Your task to perform on an android device: turn off data saver in the chrome app Image 0: 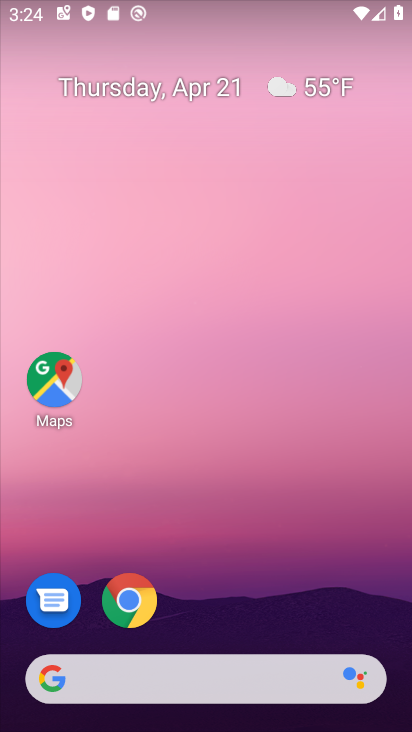
Step 0: drag from (151, 683) to (323, 249)
Your task to perform on an android device: turn off data saver in the chrome app Image 1: 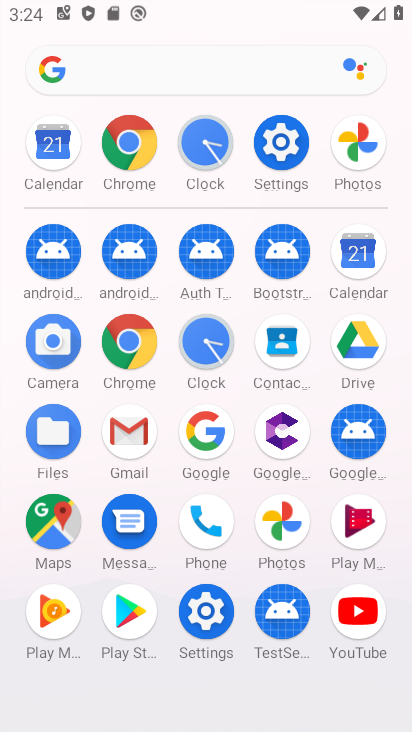
Step 1: click (133, 153)
Your task to perform on an android device: turn off data saver in the chrome app Image 2: 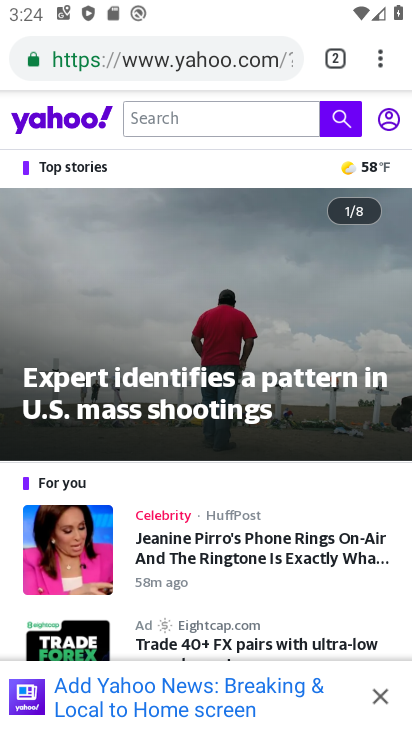
Step 2: click (375, 64)
Your task to perform on an android device: turn off data saver in the chrome app Image 3: 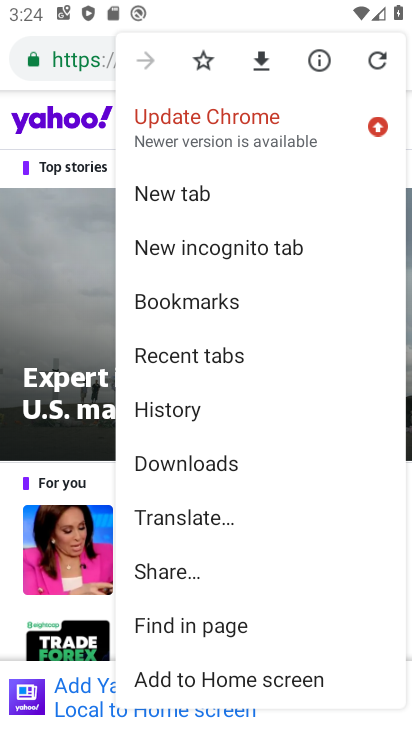
Step 3: drag from (221, 613) to (317, 189)
Your task to perform on an android device: turn off data saver in the chrome app Image 4: 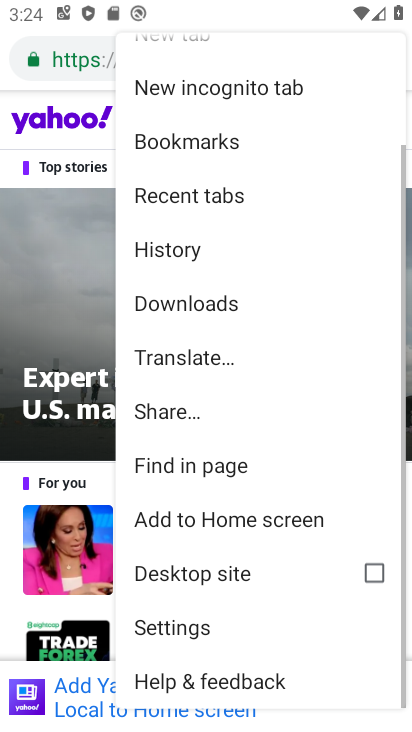
Step 4: click (189, 625)
Your task to perform on an android device: turn off data saver in the chrome app Image 5: 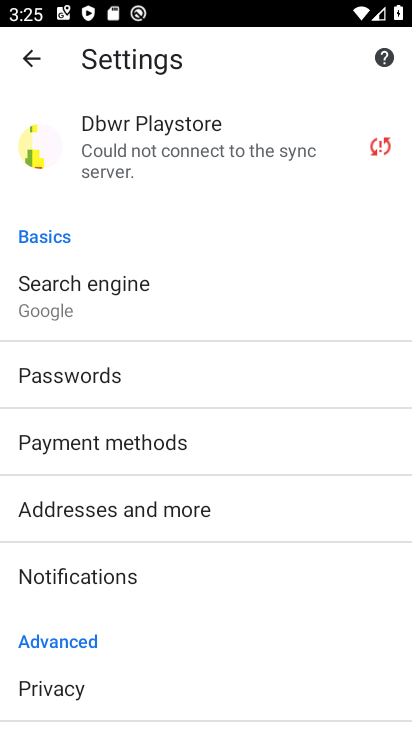
Step 5: drag from (101, 672) to (277, 236)
Your task to perform on an android device: turn off data saver in the chrome app Image 6: 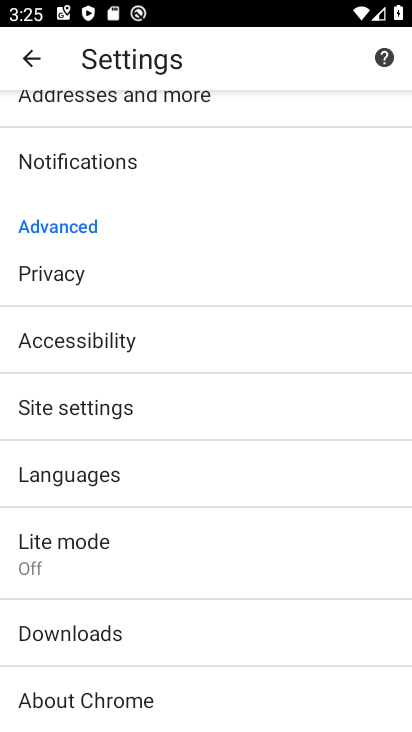
Step 6: click (102, 547)
Your task to perform on an android device: turn off data saver in the chrome app Image 7: 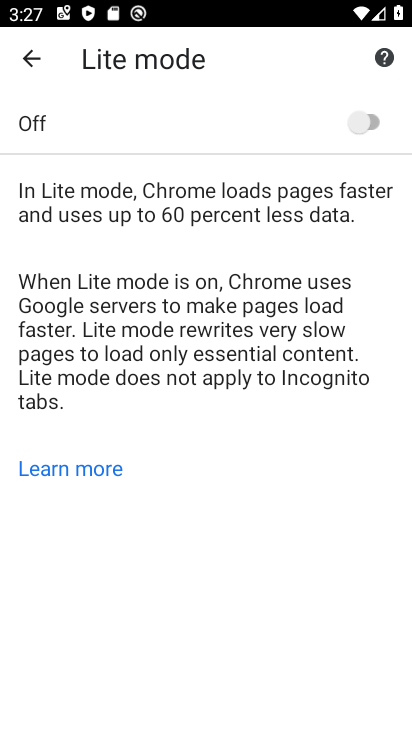
Step 7: task complete